Your task to perform on an android device: turn off notifications settings in the gmail app Image 0: 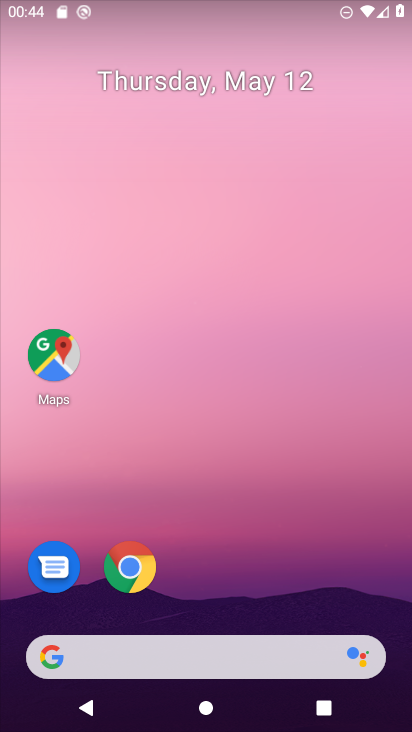
Step 0: drag from (168, 704) to (195, 52)
Your task to perform on an android device: turn off notifications settings in the gmail app Image 1: 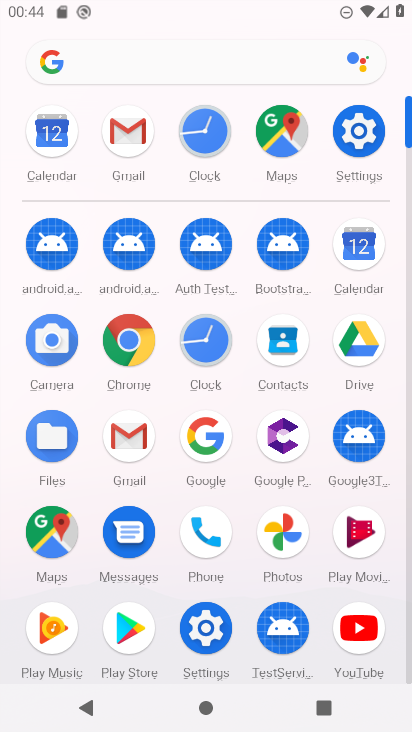
Step 1: click (127, 149)
Your task to perform on an android device: turn off notifications settings in the gmail app Image 2: 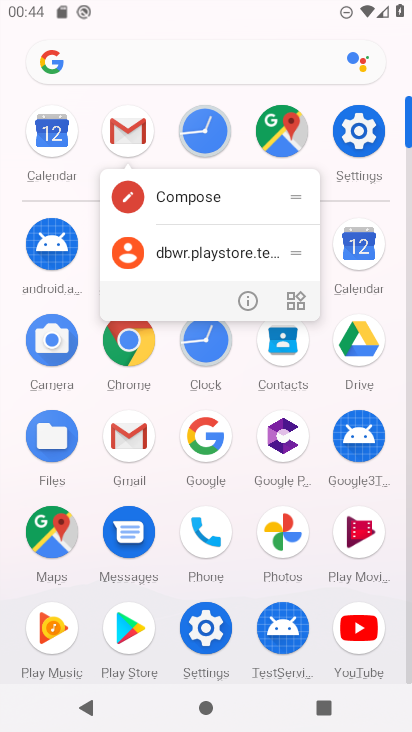
Step 2: click (252, 303)
Your task to perform on an android device: turn off notifications settings in the gmail app Image 3: 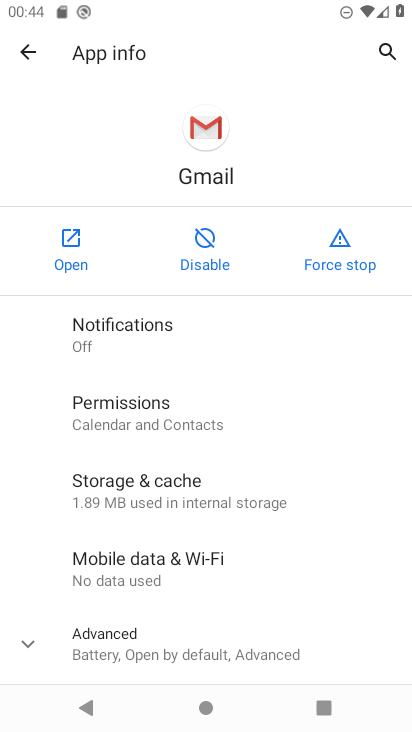
Step 3: click (116, 344)
Your task to perform on an android device: turn off notifications settings in the gmail app Image 4: 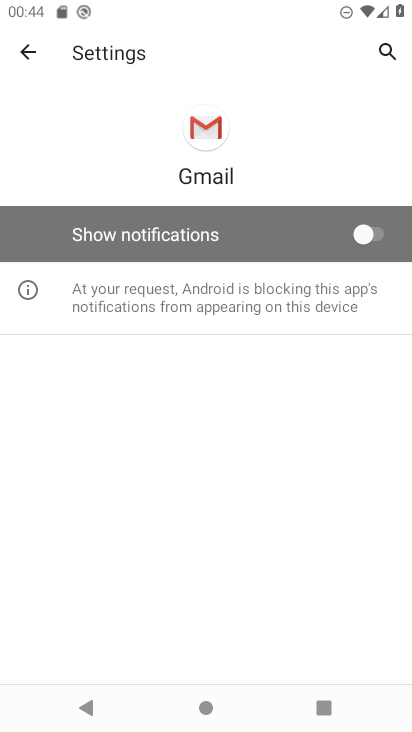
Step 4: task complete